Your task to perform on an android device: turn off improve location accuracy Image 0: 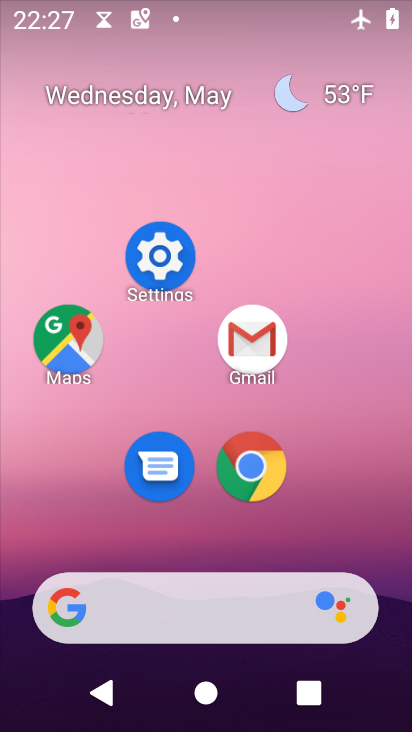
Step 0: drag from (213, 537) to (209, 297)
Your task to perform on an android device: turn off improve location accuracy Image 1: 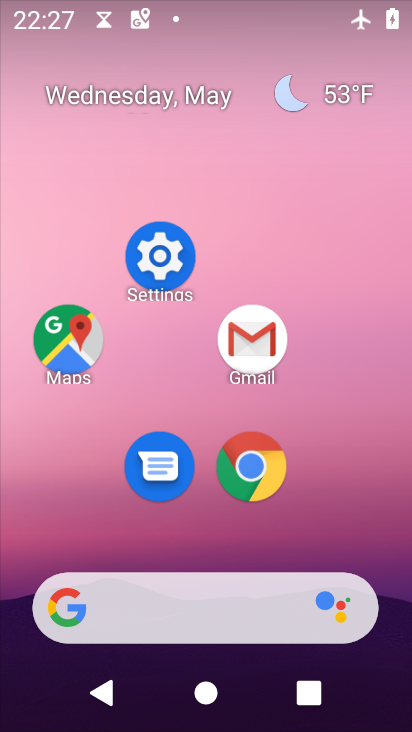
Step 1: drag from (201, 534) to (245, 105)
Your task to perform on an android device: turn off improve location accuracy Image 2: 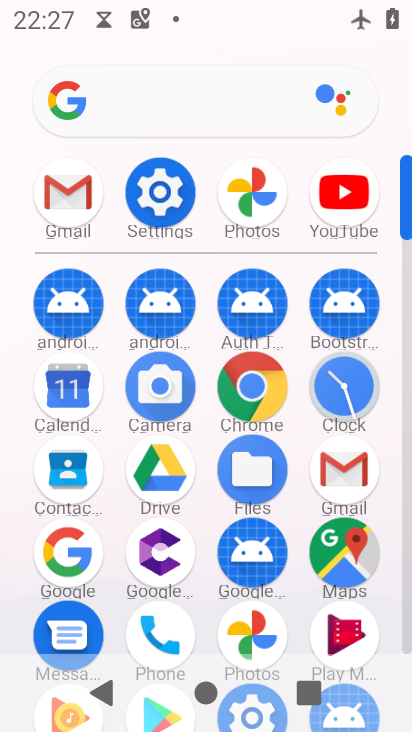
Step 2: click (163, 189)
Your task to perform on an android device: turn off improve location accuracy Image 3: 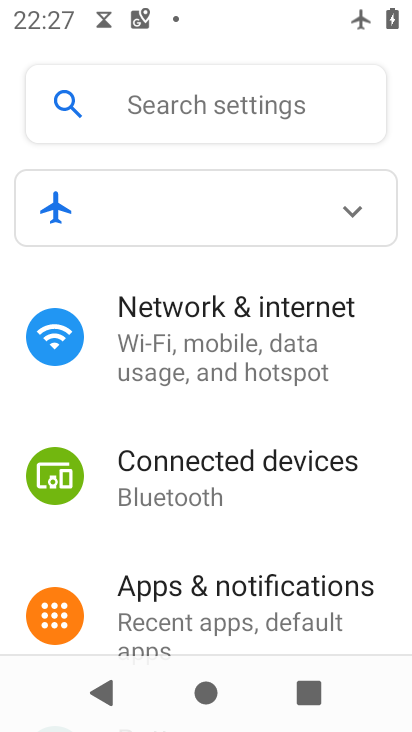
Step 3: drag from (265, 577) to (276, 142)
Your task to perform on an android device: turn off improve location accuracy Image 4: 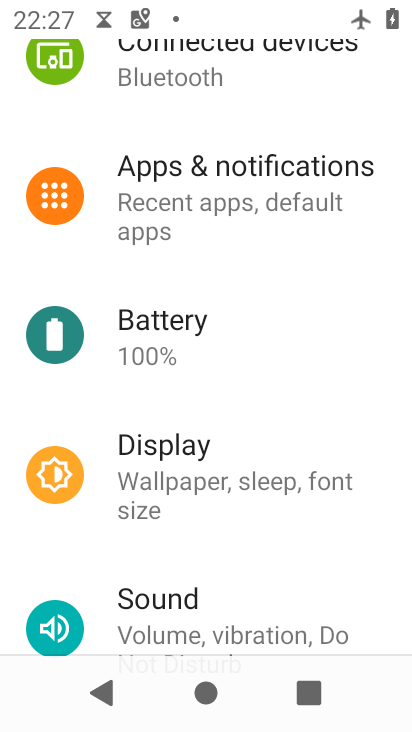
Step 4: drag from (218, 596) to (221, 267)
Your task to perform on an android device: turn off improve location accuracy Image 5: 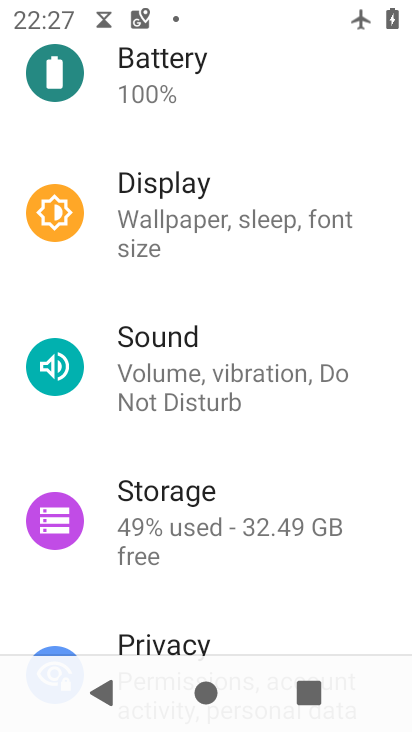
Step 5: drag from (225, 566) to (237, 340)
Your task to perform on an android device: turn off improve location accuracy Image 6: 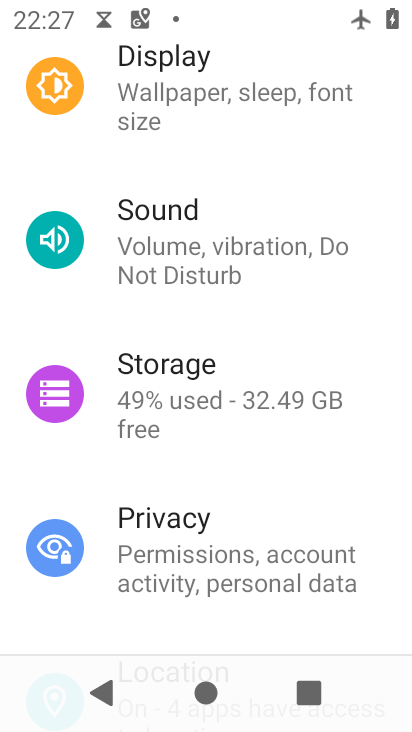
Step 6: drag from (208, 484) to (231, 257)
Your task to perform on an android device: turn off improve location accuracy Image 7: 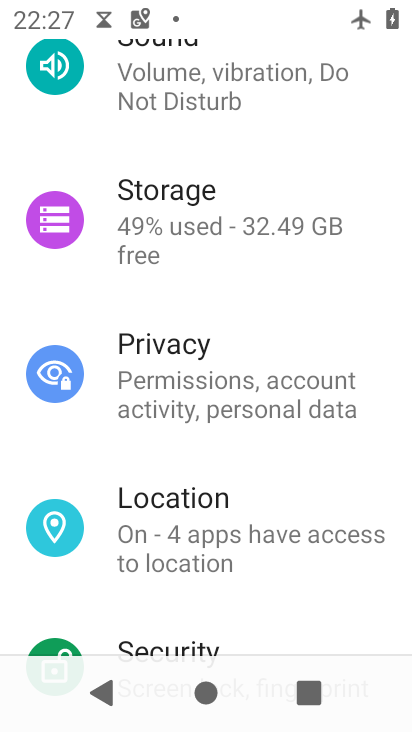
Step 7: drag from (215, 457) to (217, 86)
Your task to perform on an android device: turn off improve location accuracy Image 8: 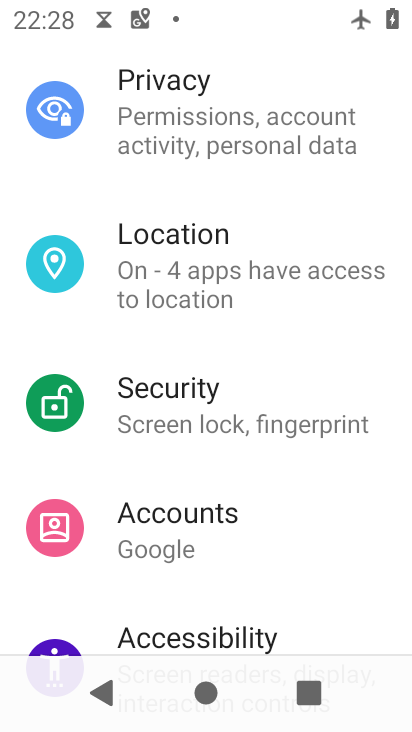
Step 8: click (203, 284)
Your task to perform on an android device: turn off improve location accuracy Image 9: 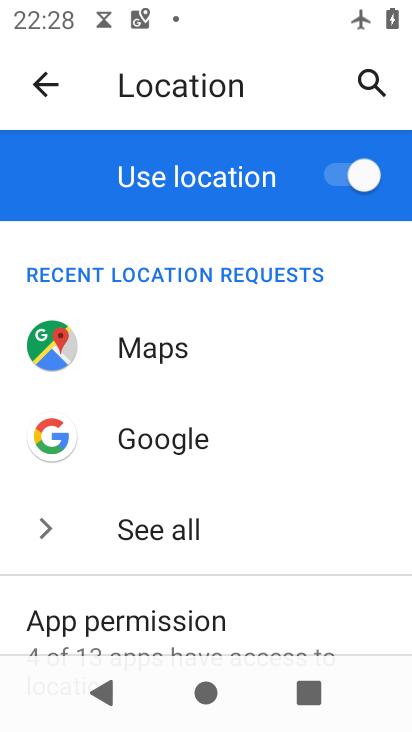
Step 9: drag from (238, 593) to (238, 303)
Your task to perform on an android device: turn off improve location accuracy Image 10: 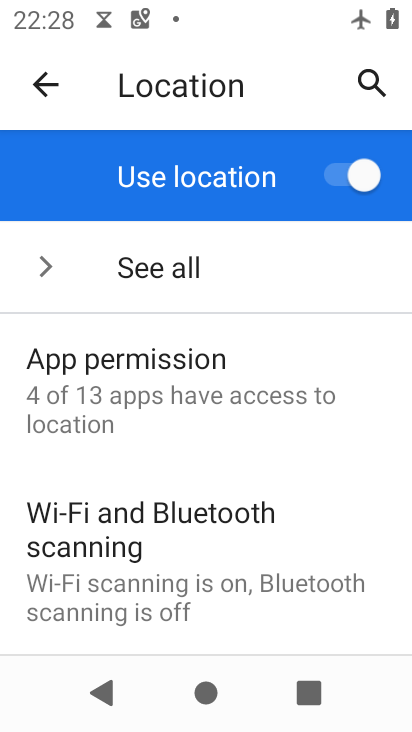
Step 10: drag from (193, 588) to (214, 189)
Your task to perform on an android device: turn off improve location accuracy Image 11: 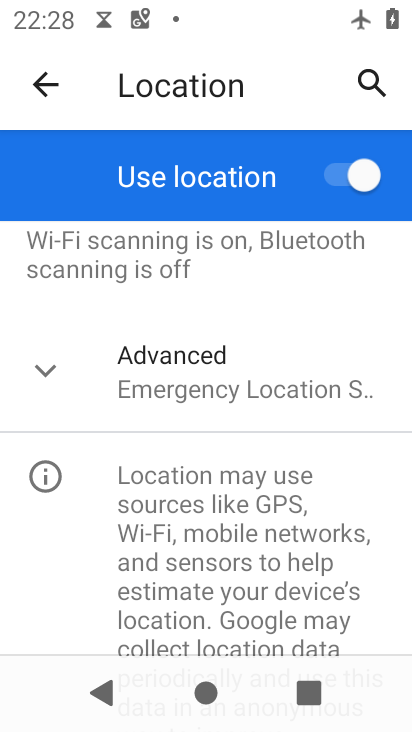
Step 11: click (173, 398)
Your task to perform on an android device: turn off improve location accuracy Image 12: 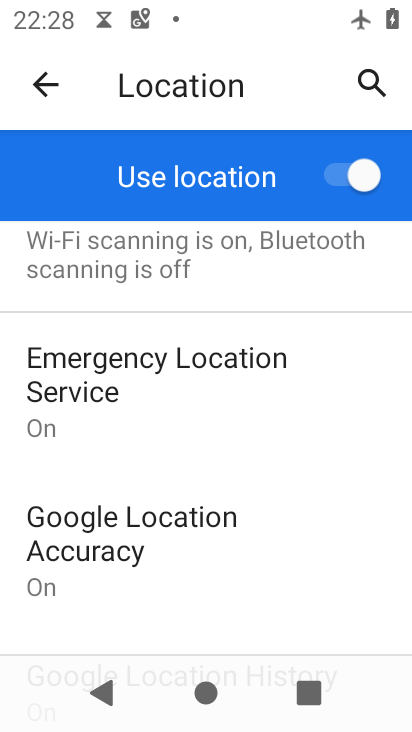
Step 12: click (192, 549)
Your task to perform on an android device: turn off improve location accuracy Image 13: 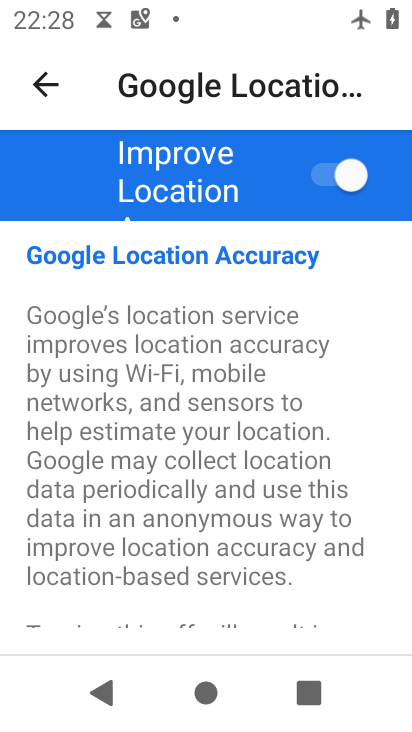
Step 13: click (361, 185)
Your task to perform on an android device: turn off improve location accuracy Image 14: 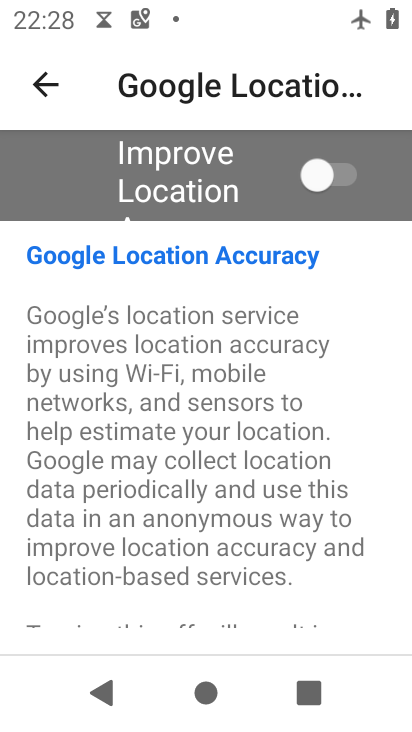
Step 14: task complete